Your task to perform on an android device: remove spam from my inbox in the gmail app Image 0: 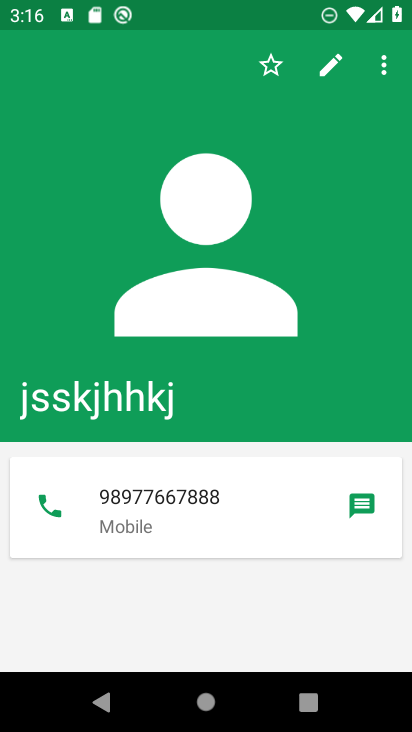
Step 0: press home button
Your task to perform on an android device: remove spam from my inbox in the gmail app Image 1: 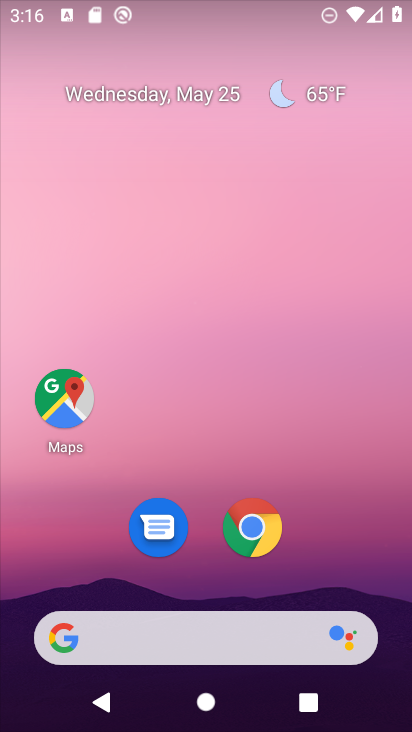
Step 1: drag from (205, 490) to (272, 10)
Your task to perform on an android device: remove spam from my inbox in the gmail app Image 2: 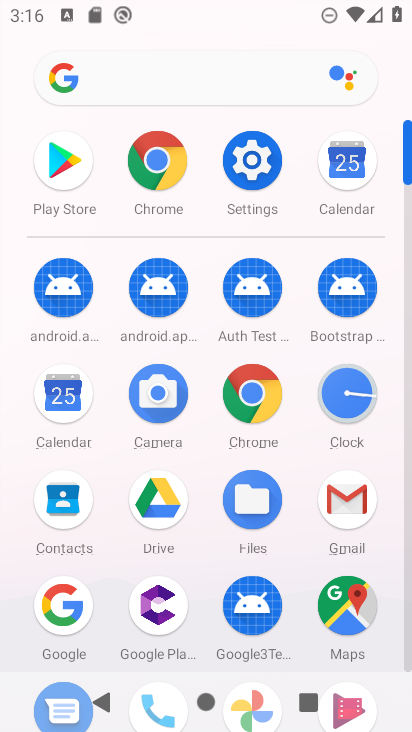
Step 2: click (345, 507)
Your task to perform on an android device: remove spam from my inbox in the gmail app Image 3: 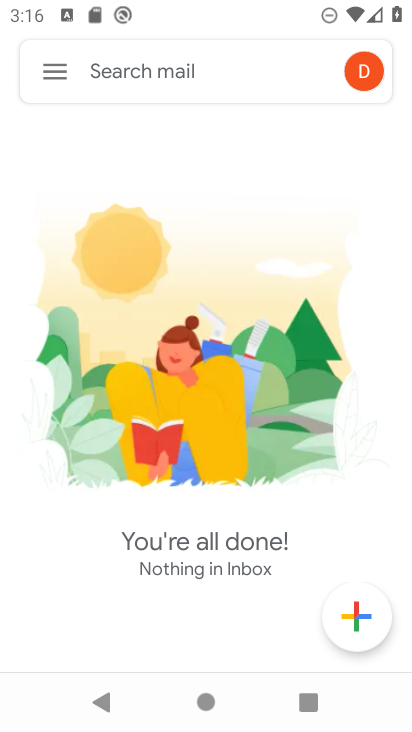
Step 3: click (59, 71)
Your task to perform on an android device: remove spam from my inbox in the gmail app Image 4: 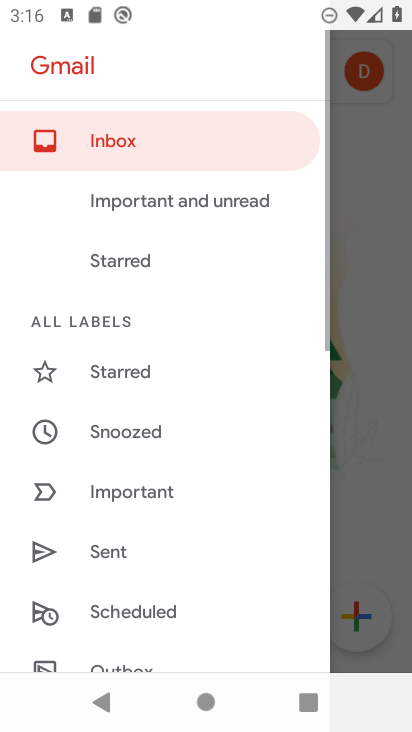
Step 4: drag from (118, 580) to (145, 121)
Your task to perform on an android device: remove spam from my inbox in the gmail app Image 5: 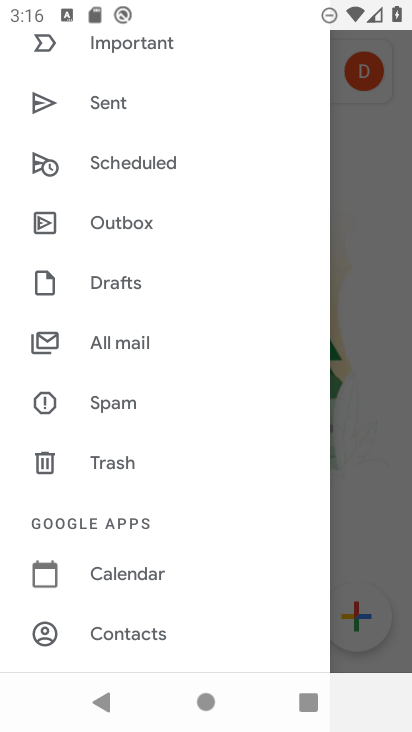
Step 5: click (129, 411)
Your task to perform on an android device: remove spam from my inbox in the gmail app Image 6: 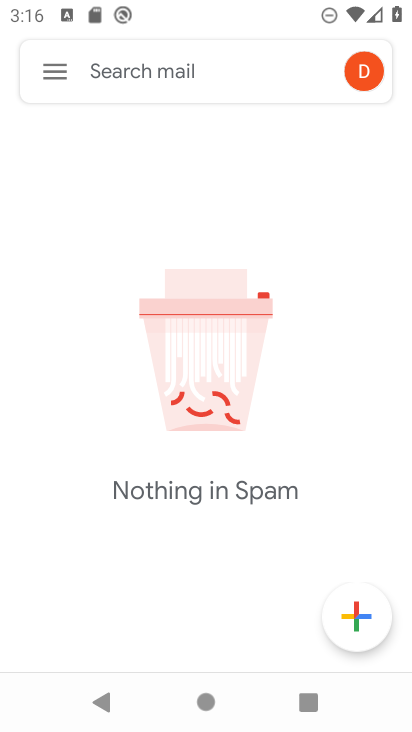
Step 6: task complete